Your task to perform on an android device: turn smart compose on in the gmail app Image 0: 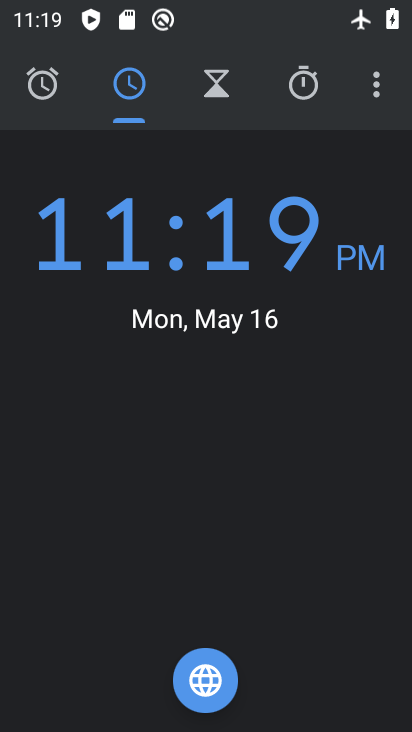
Step 0: press home button
Your task to perform on an android device: turn smart compose on in the gmail app Image 1: 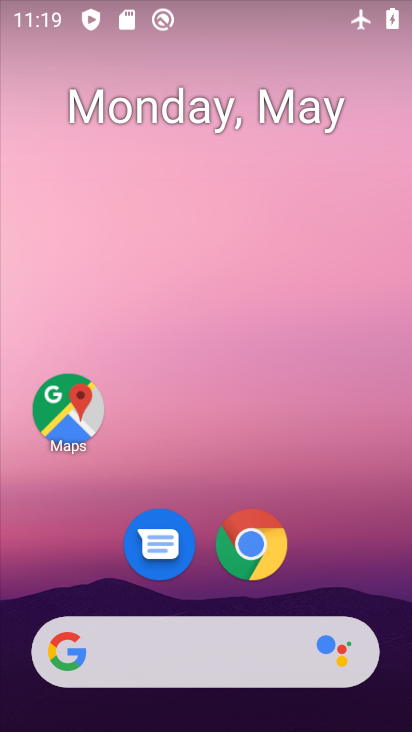
Step 1: drag from (375, 514) to (288, 67)
Your task to perform on an android device: turn smart compose on in the gmail app Image 2: 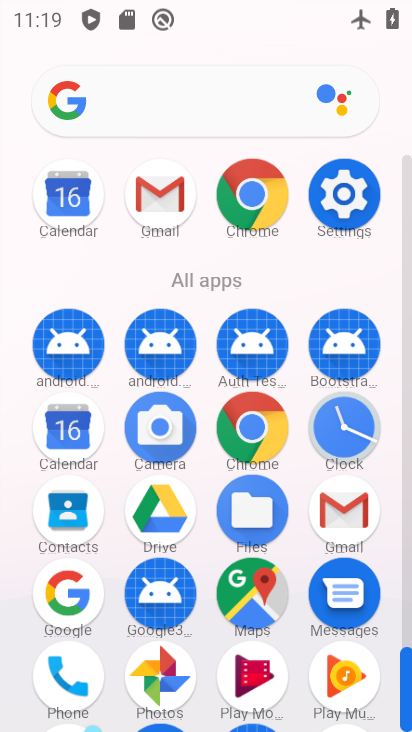
Step 2: click (331, 514)
Your task to perform on an android device: turn smart compose on in the gmail app Image 3: 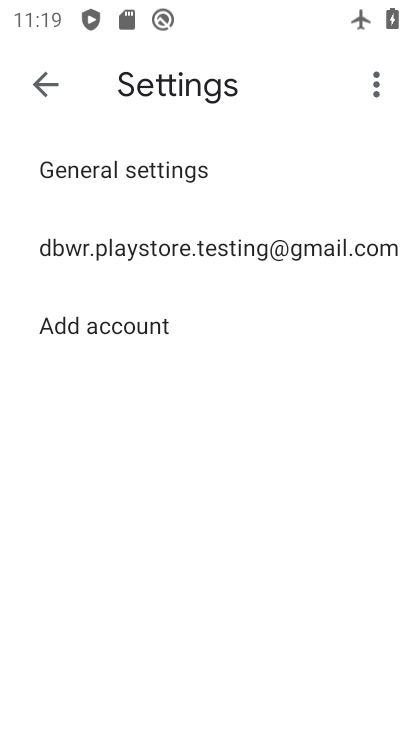
Step 3: click (164, 245)
Your task to perform on an android device: turn smart compose on in the gmail app Image 4: 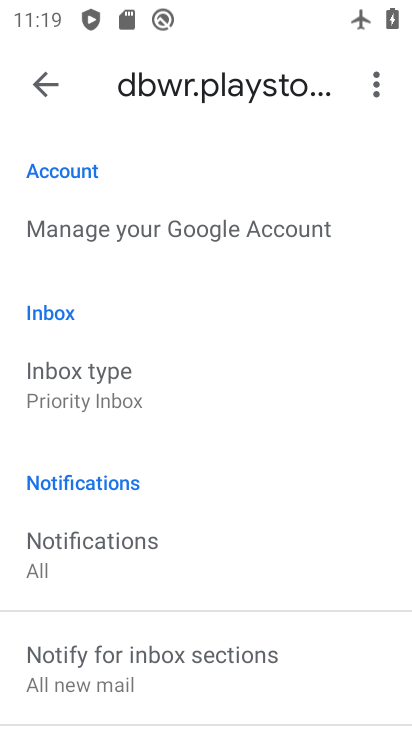
Step 4: task complete